Your task to perform on an android device: star an email in the gmail app Image 0: 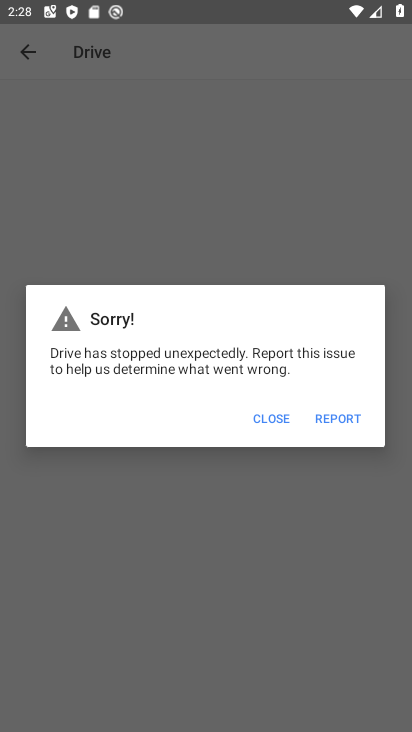
Step 0: press home button
Your task to perform on an android device: star an email in the gmail app Image 1: 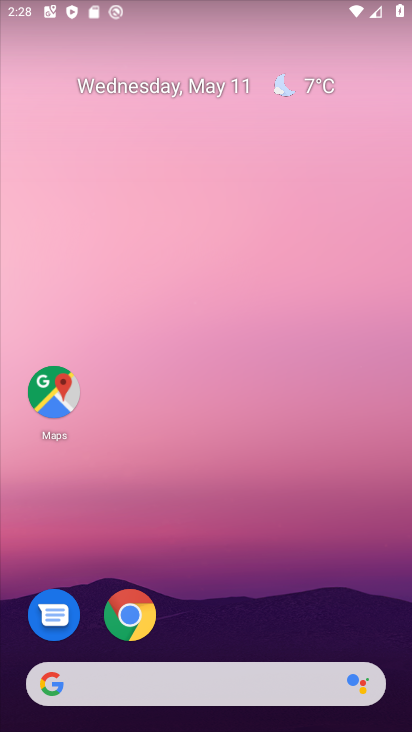
Step 1: drag from (306, 613) to (250, 103)
Your task to perform on an android device: star an email in the gmail app Image 2: 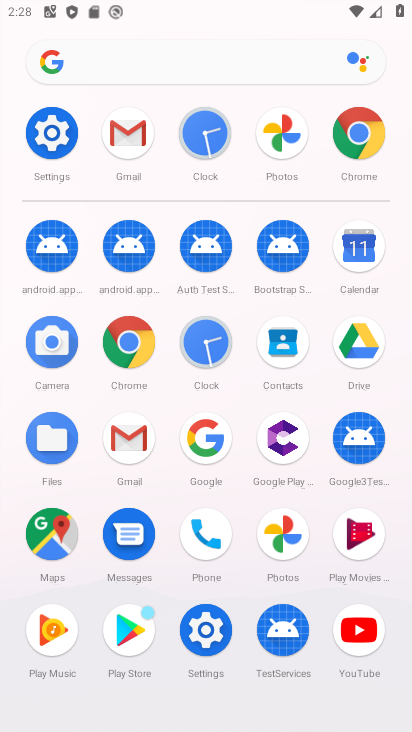
Step 2: click (127, 424)
Your task to perform on an android device: star an email in the gmail app Image 3: 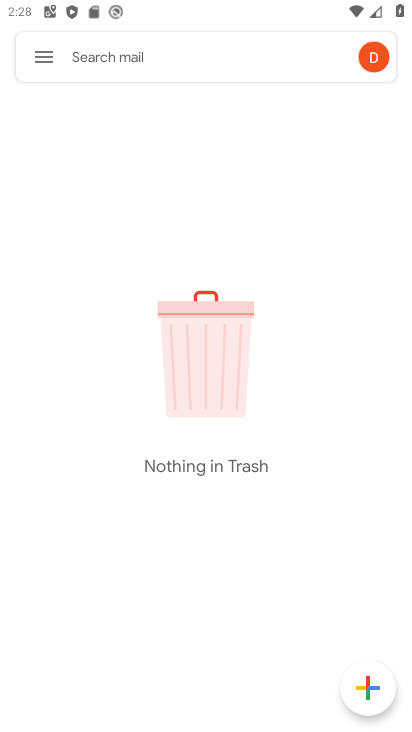
Step 3: click (31, 59)
Your task to perform on an android device: star an email in the gmail app Image 4: 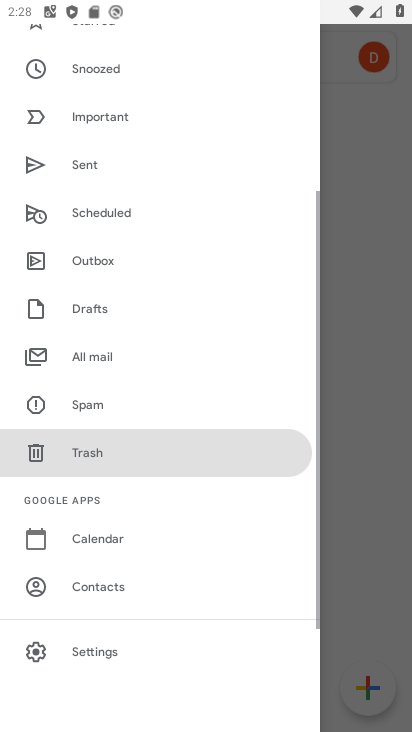
Step 4: click (114, 344)
Your task to perform on an android device: star an email in the gmail app Image 5: 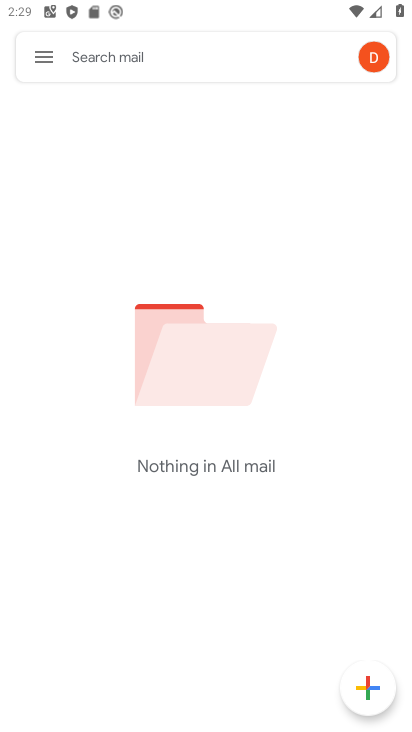
Step 5: task complete